Your task to perform on an android device: turn off smart reply in the gmail app Image 0: 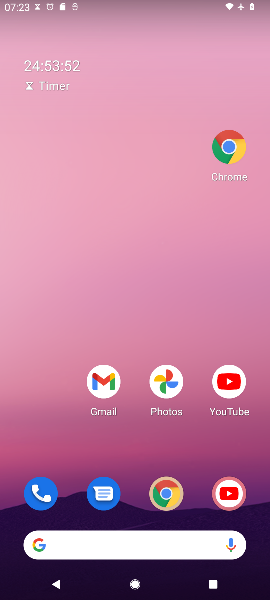
Step 0: press home button
Your task to perform on an android device: turn off smart reply in the gmail app Image 1: 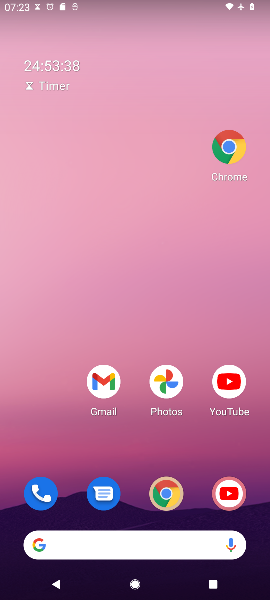
Step 1: click (106, 379)
Your task to perform on an android device: turn off smart reply in the gmail app Image 2: 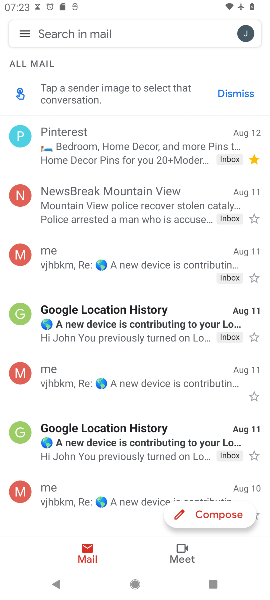
Step 2: click (20, 36)
Your task to perform on an android device: turn off smart reply in the gmail app Image 3: 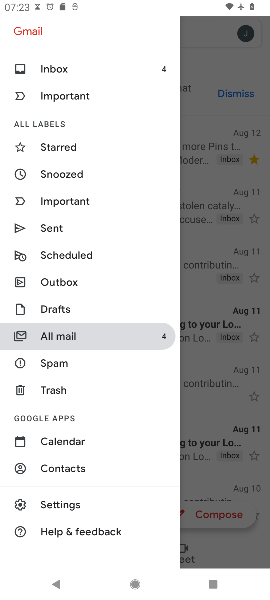
Step 3: click (58, 508)
Your task to perform on an android device: turn off smart reply in the gmail app Image 4: 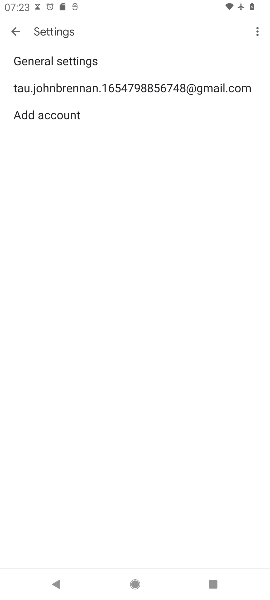
Step 4: click (108, 89)
Your task to perform on an android device: turn off smart reply in the gmail app Image 5: 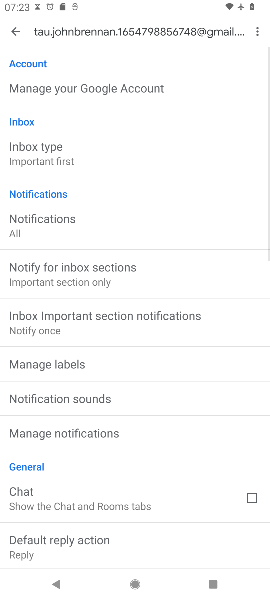
Step 5: task complete